Your task to perform on an android device: see tabs open on other devices in the chrome app Image 0: 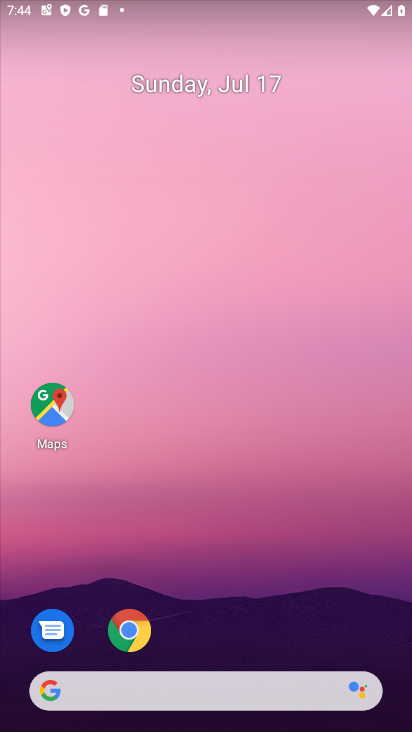
Step 0: drag from (212, 621) to (237, 319)
Your task to perform on an android device: see tabs open on other devices in the chrome app Image 1: 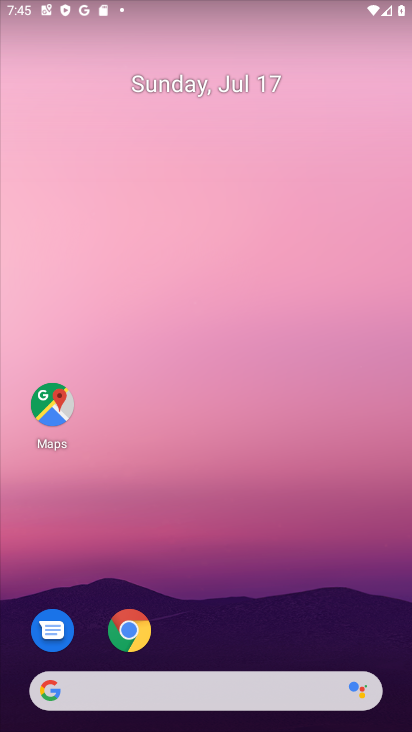
Step 1: click (129, 635)
Your task to perform on an android device: see tabs open on other devices in the chrome app Image 2: 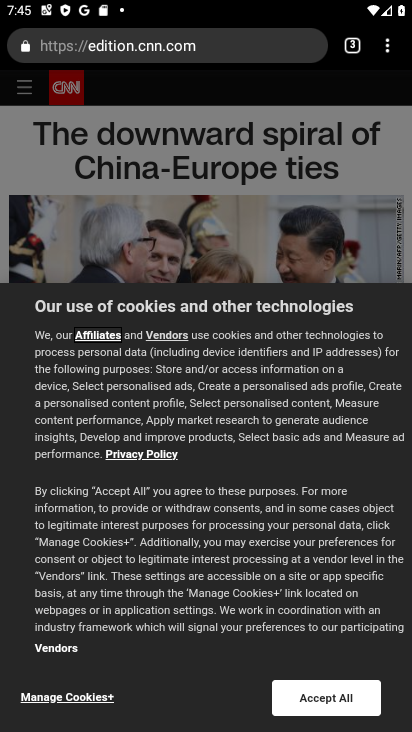
Step 2: click (388, 50)
Your task to perform on an android device: see tabs open on other devices in the chrome app Image 3: 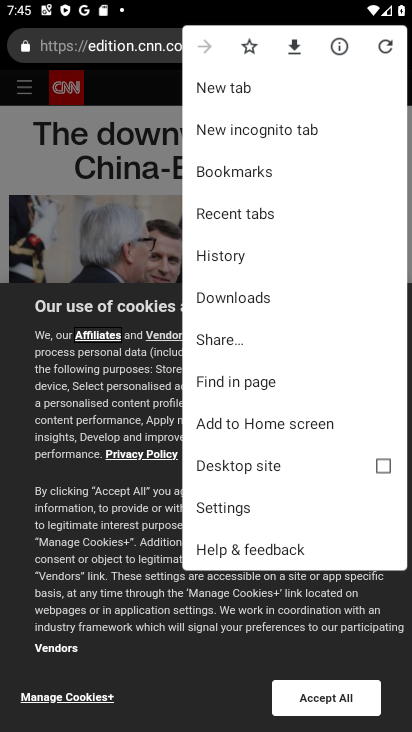
Step 3: click (251, 209)
Your task to perform on an android device: see tabs open on other devices in the chrome app Image 4: 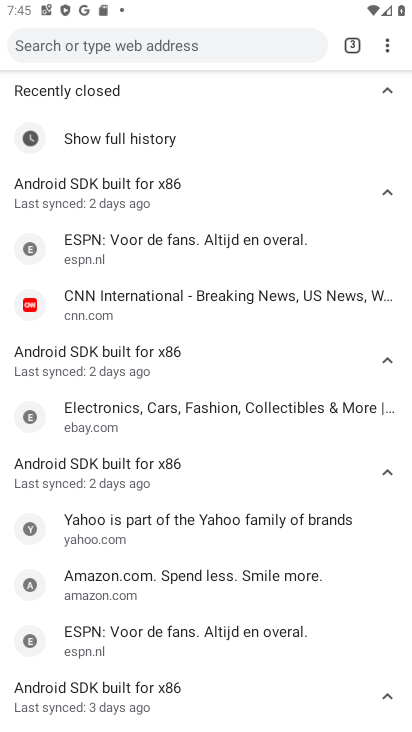
Step 4: task complete